Your task to perform on an android device: Open Maps and search for coffee Image 0: 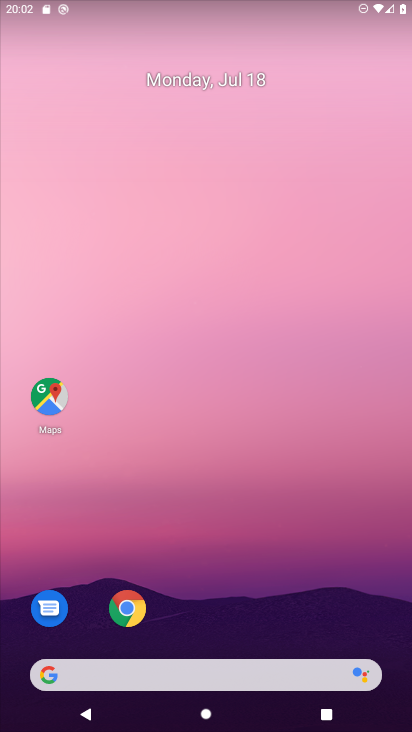
Step 0: click (50, 393)
Your task to perform on an android device: Open Maps and search for coffee Image 1: 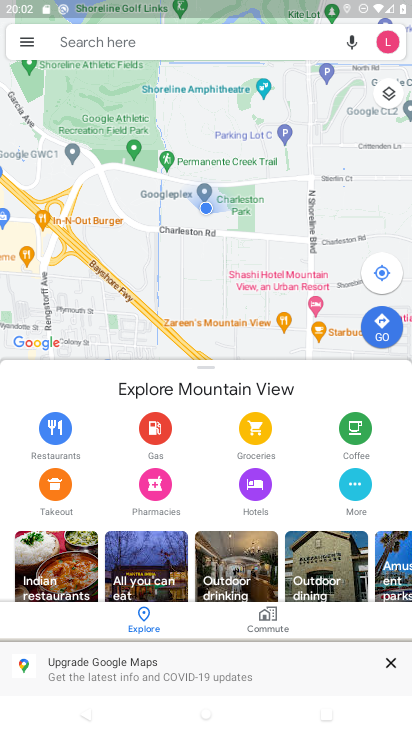
Step 1: click (141, 36)
Your task to perform on an android device: Open Maps and search for coffee Image 2: 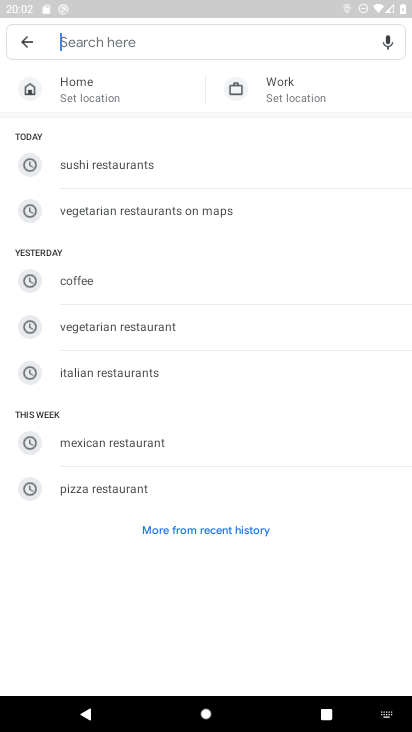
Step 2: click (73, 283)
Your task to perform on an android device: Open Maps and search for coffee Image 3: 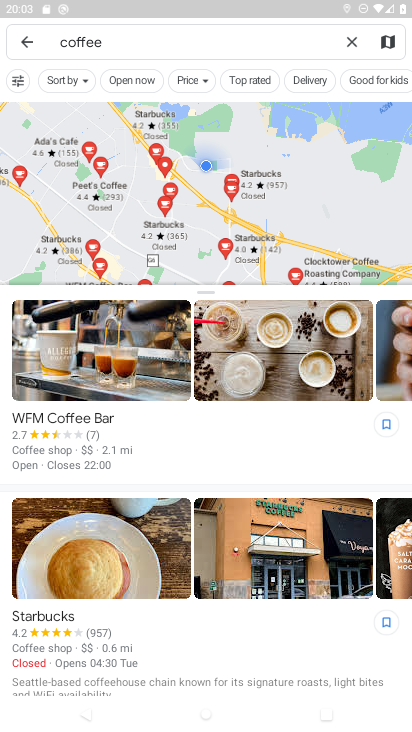
Step 3: task complete